Your task to perform on an android device: make emails show in primary in the gmail app Image 0: 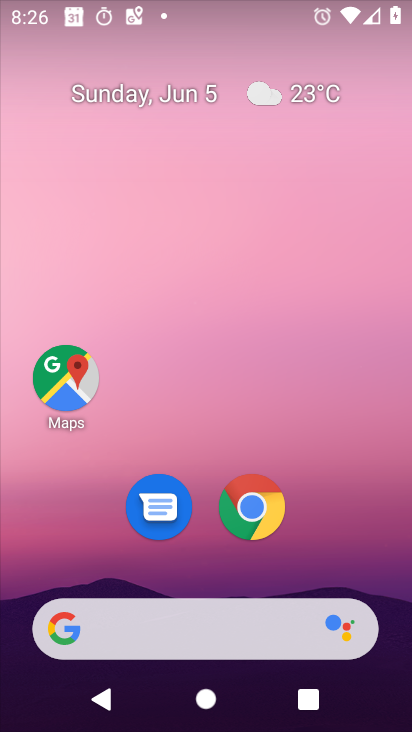
Step 0: drag from (235, 658) to (263, 193)
Your task to perform on an android device: make emails show in primary in the gmail app Image 1: 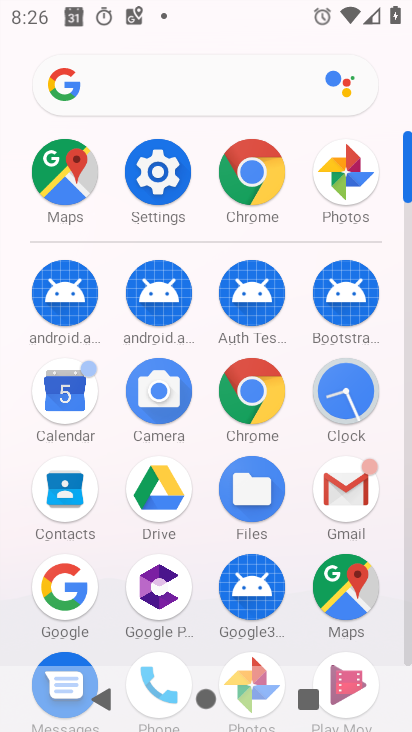
Step 1: click (339, 505)
Your task to perform on an android device: make emails show in primary in the gmail app Image 2: 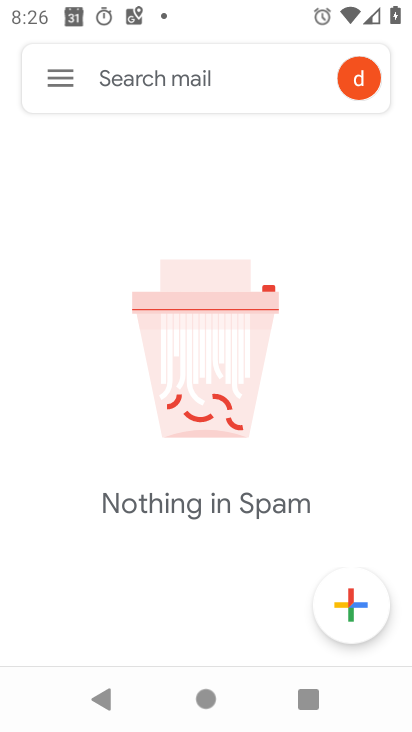
Step 2: click (44, 73)
Your task to perform on an android device: make emails show in primary in the gmail app Image 3: 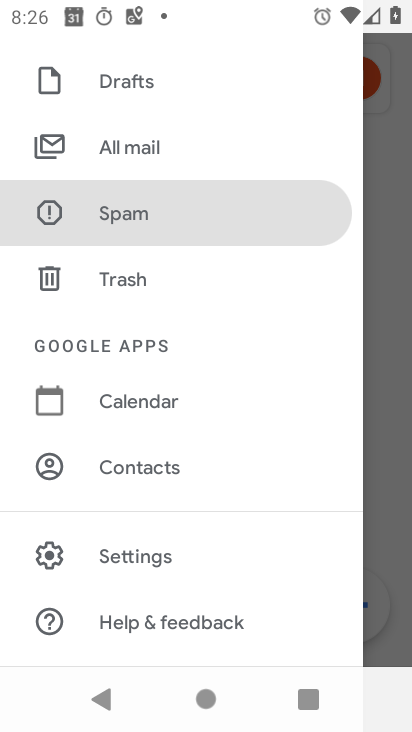
Step 3: click (146, 561)
Your task to perform on an android device: make emails show in primary in the gmail app Image 4: 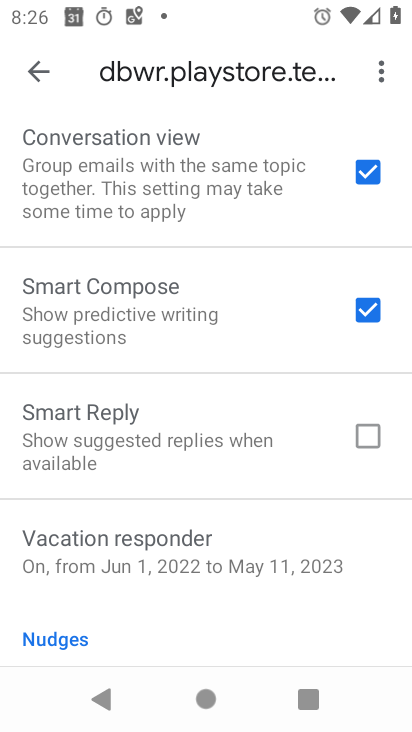
Step 4: click (41, 81)
Your task to perform on an android device: make emails show in primary in the gmail app Image 5: 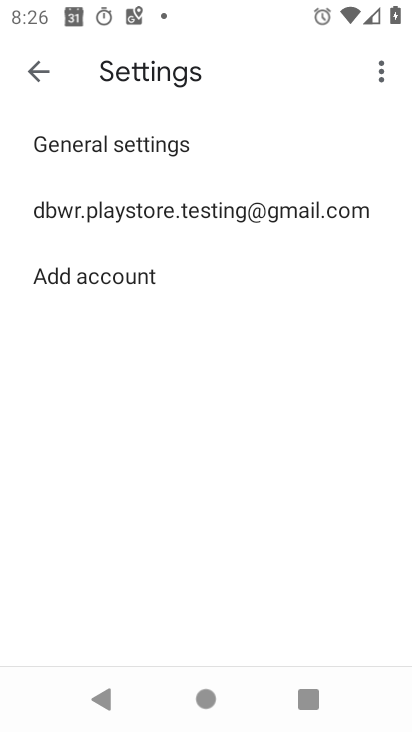
Step 5: click (22, 69)
Your task to perform on an android device: make emails show in primary in the gmail app Image 6: 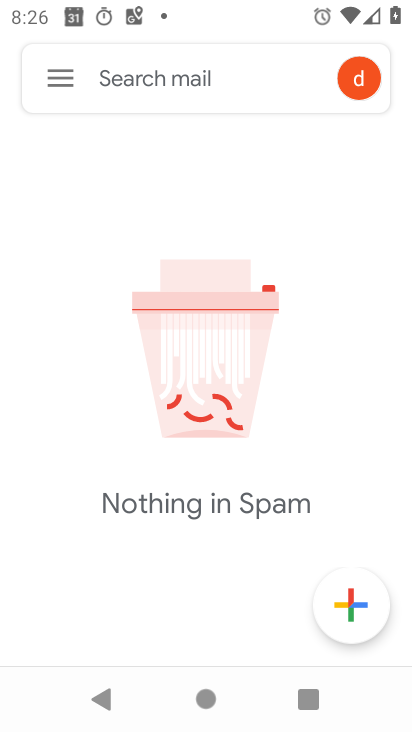
Step 6: click (51, 76)
Your task to perform on an android device: make emails show in primary in the gmail app Image 7: 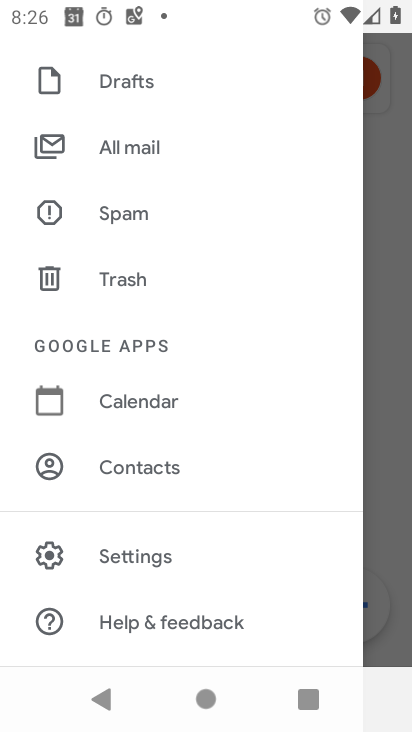
Step 7: click (125, 554)
Your task to perform on an android device: make emails show in primary in the gmail app Image 8: 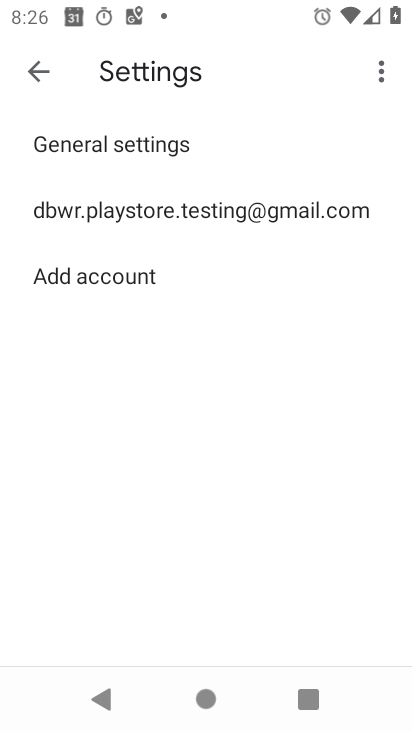
Step 8: click (143, 211)
Your task to perform on an android device: make emails show in primary in the gmail app Image 9: 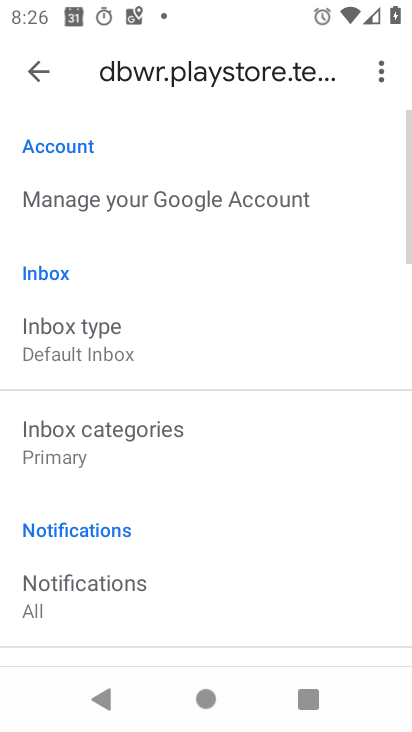
Step 9: click (117, 446)
Your task to perform on an android device: make emails show in primary in the gmail app Image 10: 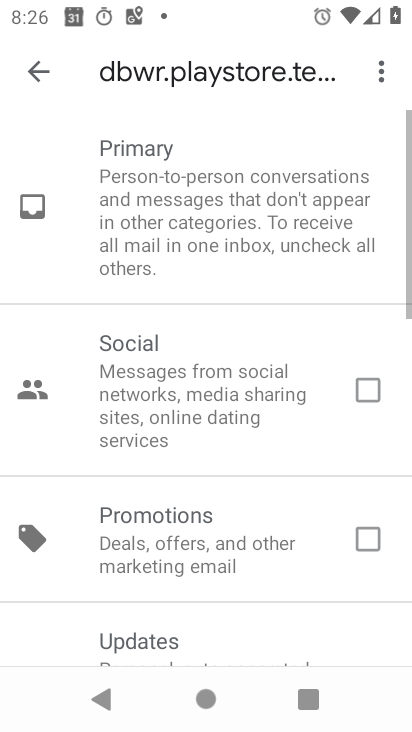
Step 10: click (194, 243)
Your task to perform on an android device: make emails show in primary in the gmail app Image 11: 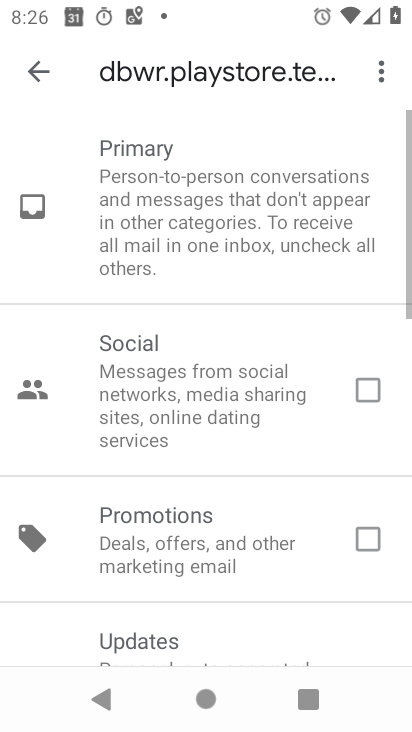
Step 11: task complete